Your task to perform on an android device: Go to Reddit.com Image 0: 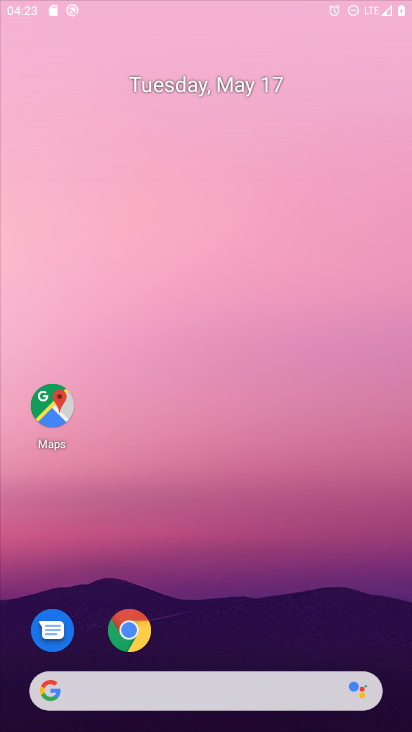
Step 0: click (280, 85)
Your task to perform on an android device: Go to Reddit.com Image 1: 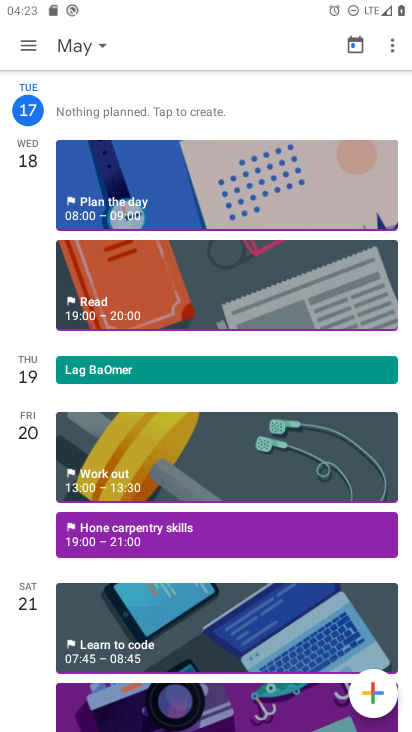
Step 1: press back button
Your task to perform on an android device: Go to Reddit.com Image 2: 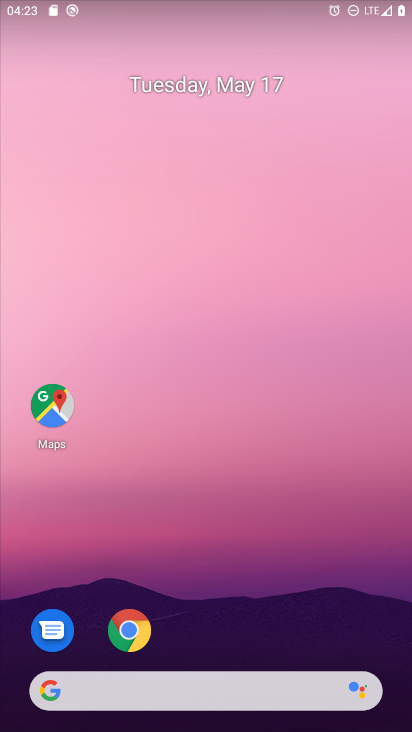
Step 2: click (134, 626)
Your task to perform on an android device: Go to Reddit.com Image 3: 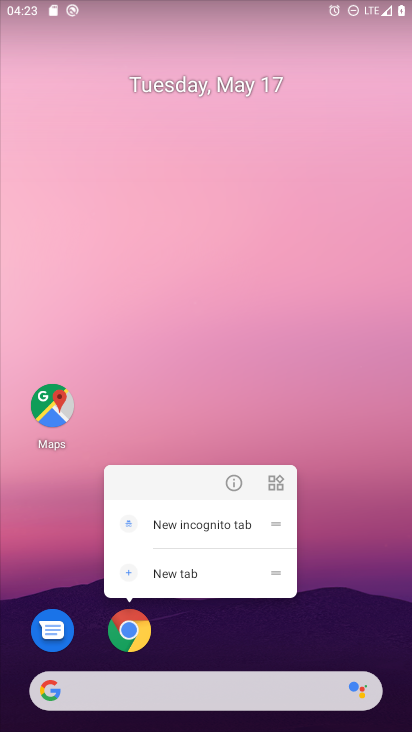
Step 3: click (120, 618)
Your task to perform on an android device: Go to Reddit.com Image 4: 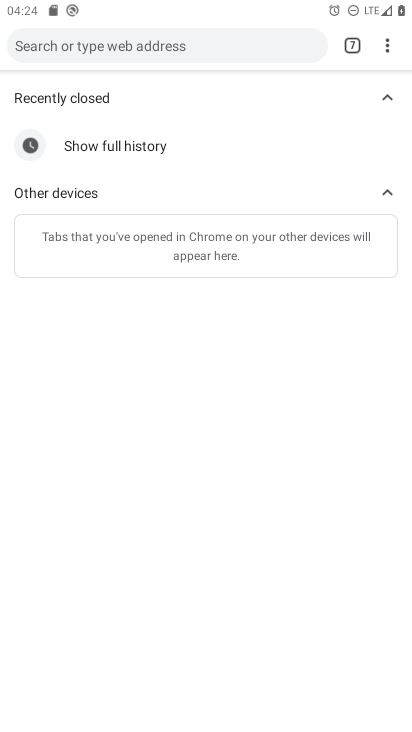
Step 4: click (351, 41)
Your task to perform on an android device: Go to Reddit.com Image 5: 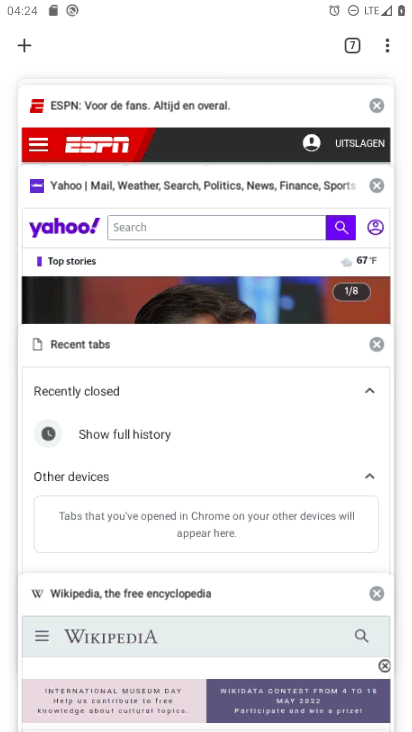
Step 5: drag from (137, 148) to (126, 670)
Your task to perform on an android device: Go to Reddit.com Image 6: 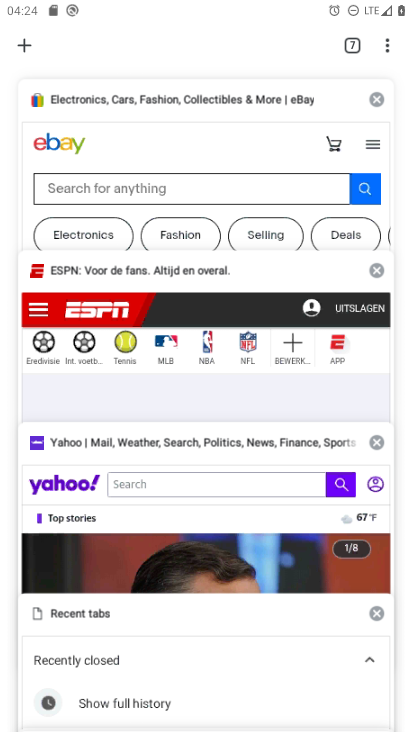
Step 6: drag from (127, 125) to (105, 620)
Your task to perform on an android device: Go to Reddit.com Image 7: 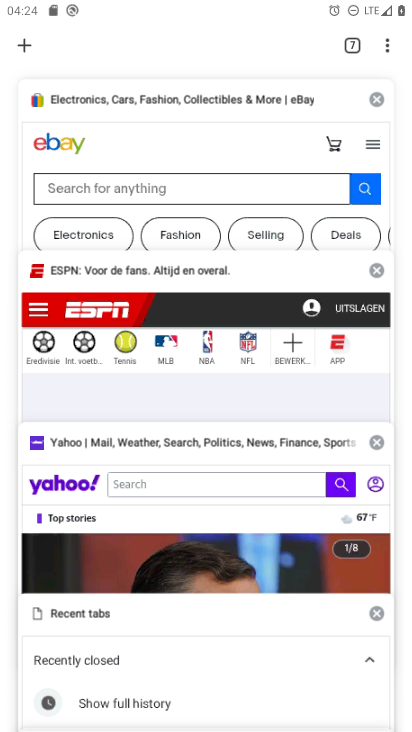
Step 7: click (30, 40)
Your task to perform on an android device: Go to Reddit.com Image 8: 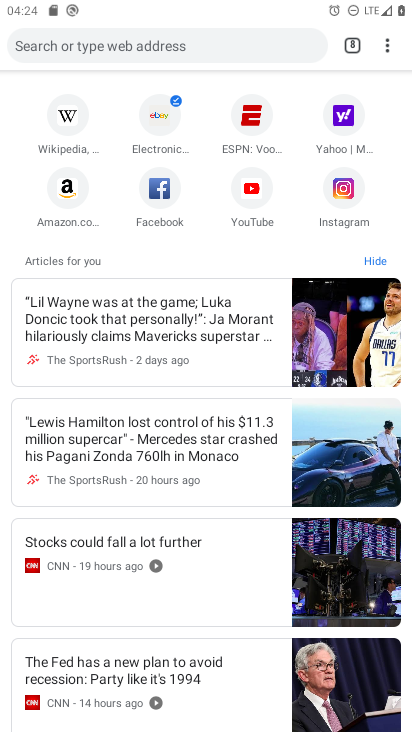
Step 8: click (84, 44)
Your task to perform on an android device: Go to Reddit.com Image 9: 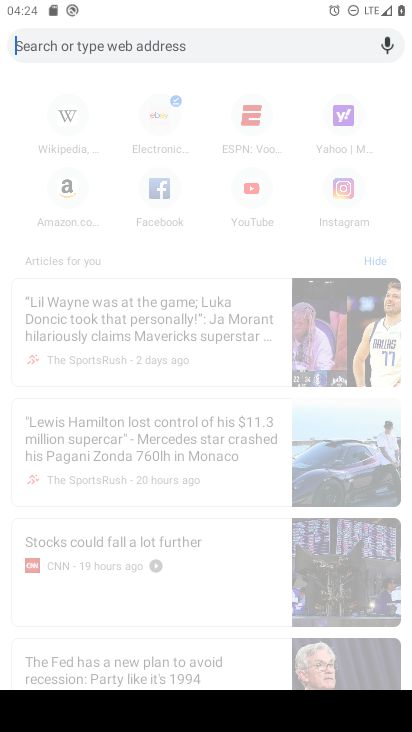
Step 9: type "reddit.com"
Your task to perform on an android device: Go to Reddit.com Image 10: 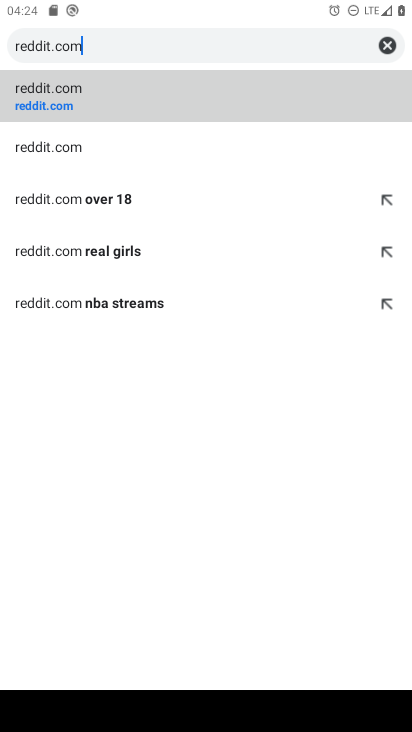
Step 10: click (58, 90)
Your task to perform on an android device: Go to Reddit.com Image 11: 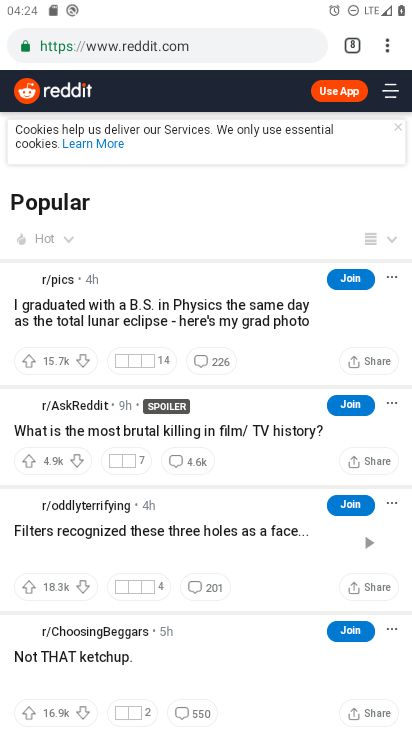
Step 11: task complete